Your task to perform on an android device: open chrome and create a bookmark for the current page Image 0: 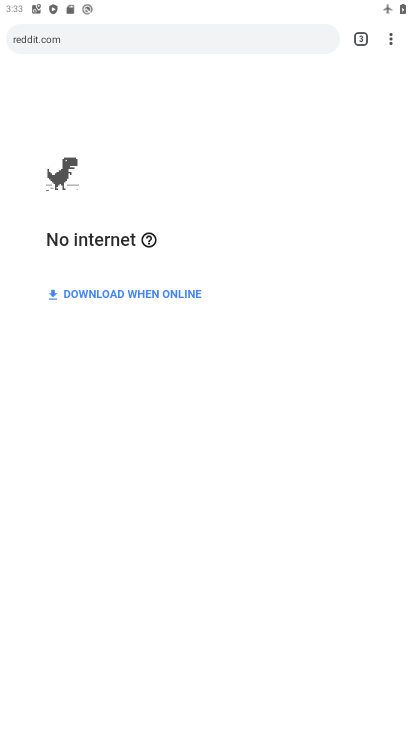
Step 0: press home button
Your task to perform on an android device: open chrome and create a bookmark for the current page Image 1: 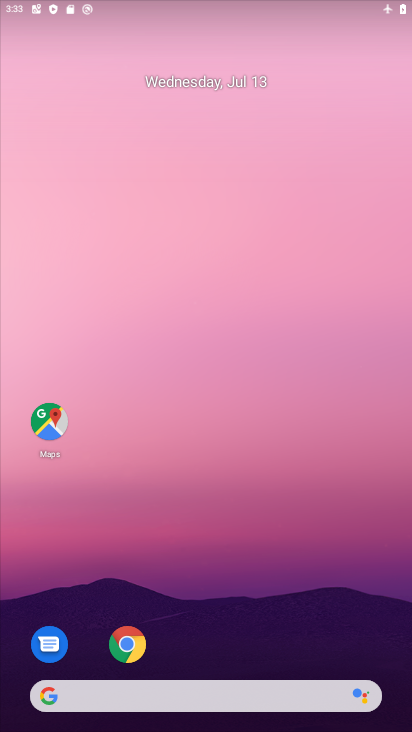
Step 1: drag from (295, 572) to (263, 127)
Your task to perform on an android device: open chrome and create a bookmark for the current page Image 2: 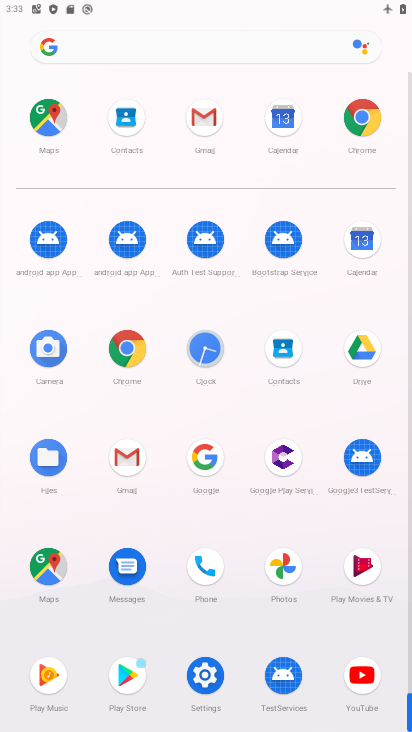
Step 2: click (132, 347)
Your task to perform on an android device: open chrome and create a bookmark for the current page Image 3: 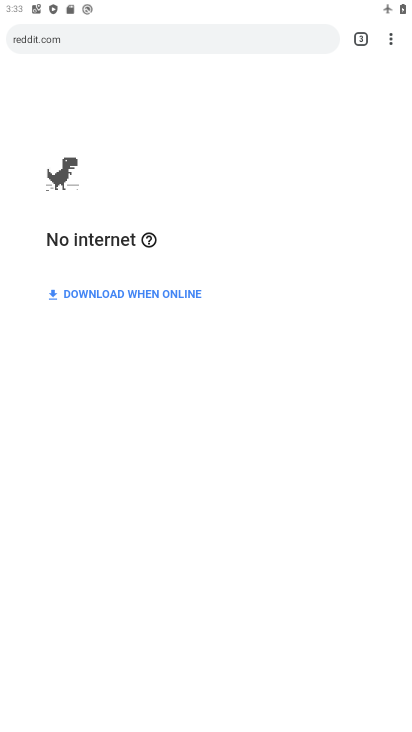
Step 3: task complete